Your task to perform on an android device: Go to wifi settings Image 0: 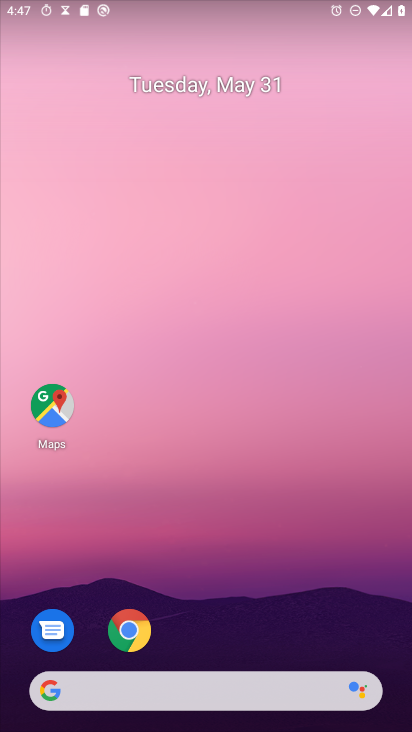
Step 0: drag from (313, 685) to (327, 3)
Your task to perform on an android device: Go to wifi settings Image 1: 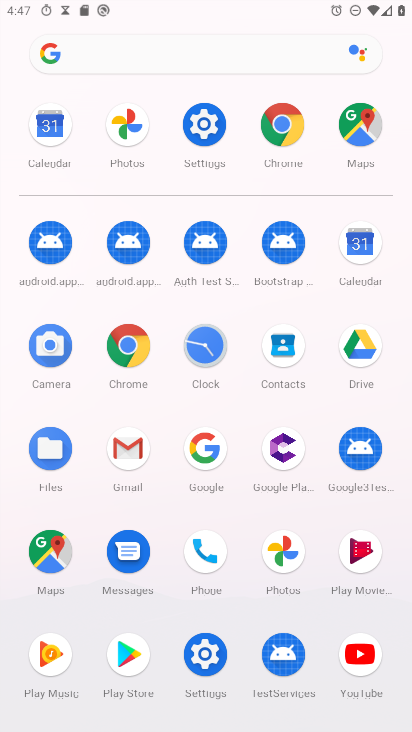
Step 1: click (210, 110)
Your task to perform on an android device: Go to wifi settings Image 2: 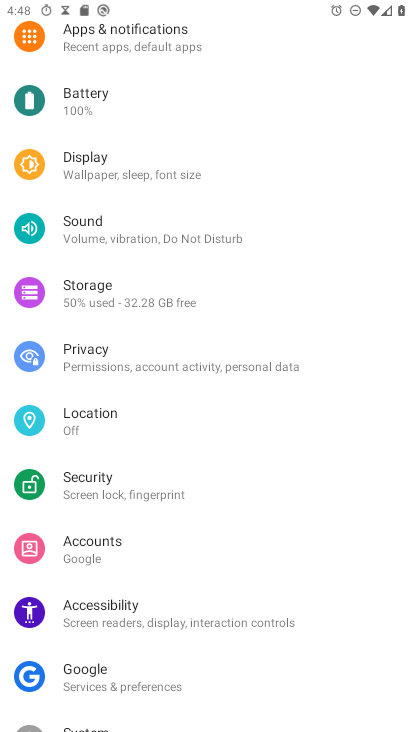
Step 2: drag from (234, 668) to (234, 91)
Your task to perform on an android device: Go to wifi settings Image 3: 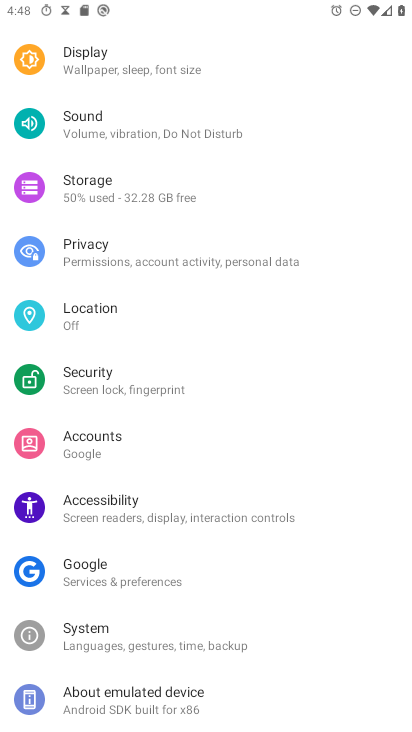
Step 3: drag from (144, 221) to (148, 726)
Your task to perform on an android device: Go to wifi settings Image 4: 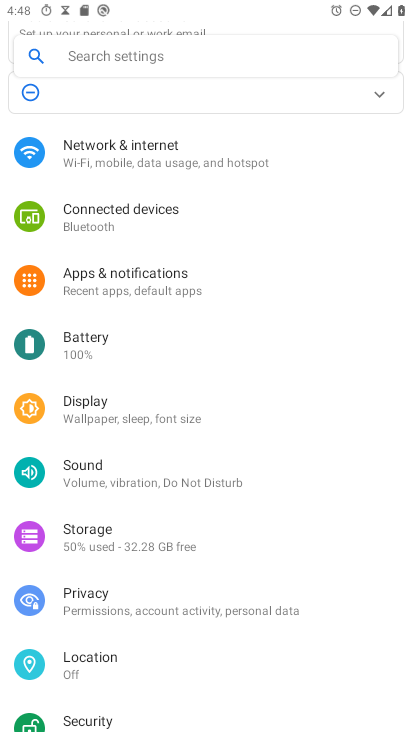
Step 4: click (170, 167)
Your task to perform on an android device: Go to wifi settings Image 5: 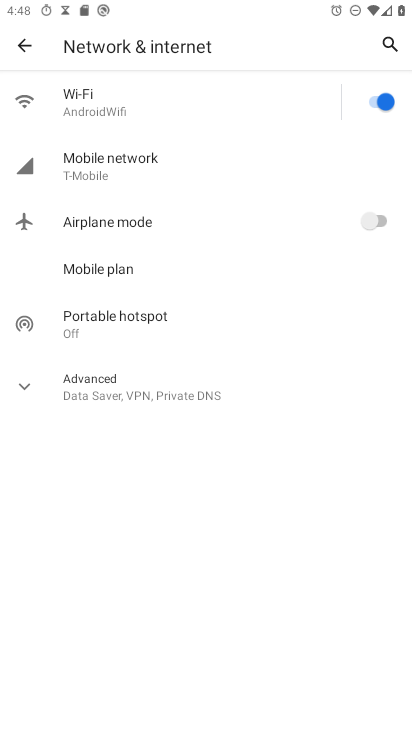
Step 5: click (148, 87)
Your task to perform on an android device: Go to wifi settings Image 6: 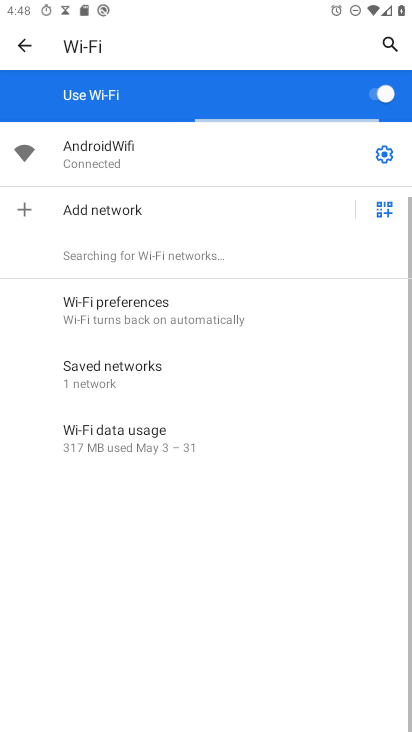
Step 6: task complete